Your task to perform on an android device: toggle sleep mode Image 0: 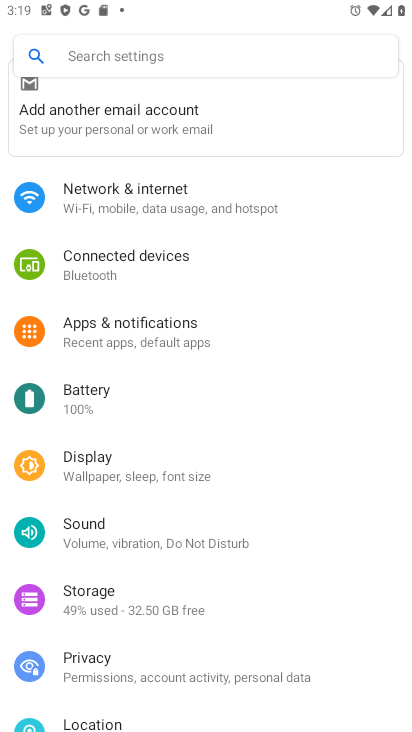
Step 0: click (119, 475)
Your task to perform on an android device: toggle sleep mode Image 1: 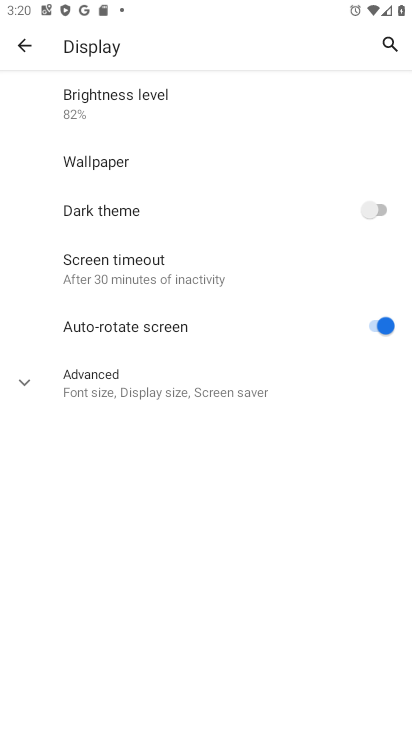
Step 1: click (132, 407)
Your task to perform on an android device: toggle sleep mode Image 2: 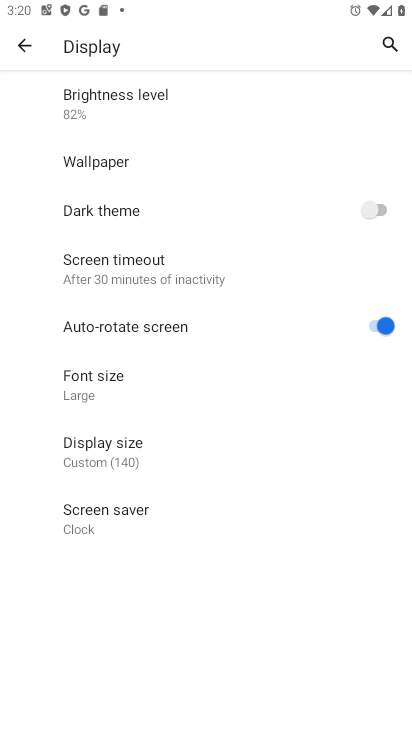
Step 2: task complete